Your task to perform on an android device: turn on location history Image 0: 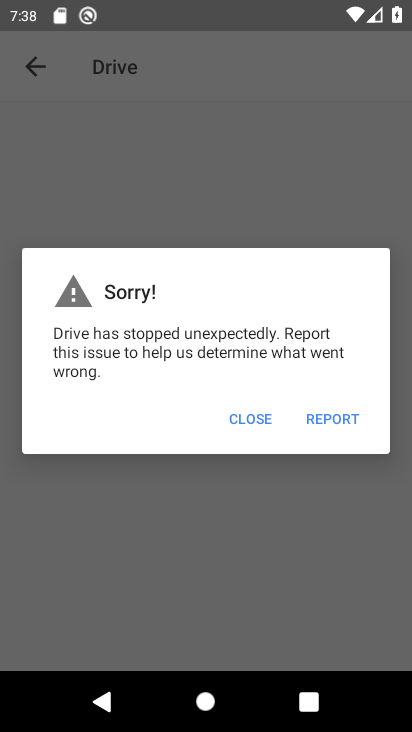
Step 0: press home button
Your task to perform on an android device: turn on location history Image 1: 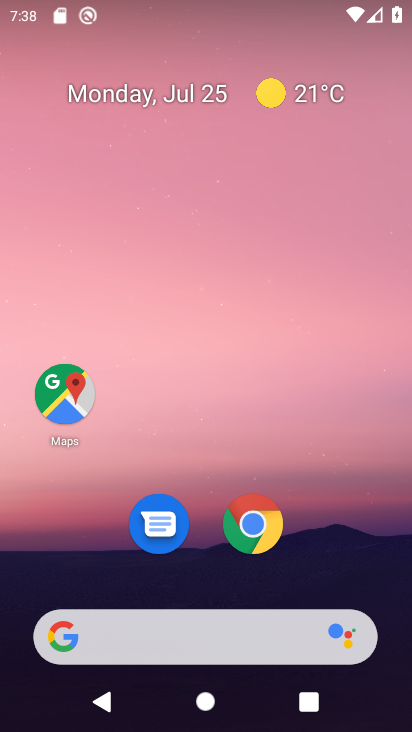
Step 1: click (64, 397)
Your task to perform on an android device: turn on location history Image 2: 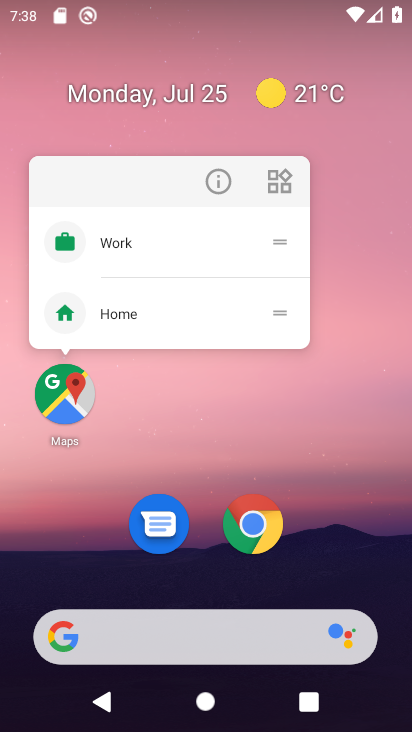
Step 2: click (71, 388)
Your task to perform on an android device: turn on location history Image 3: 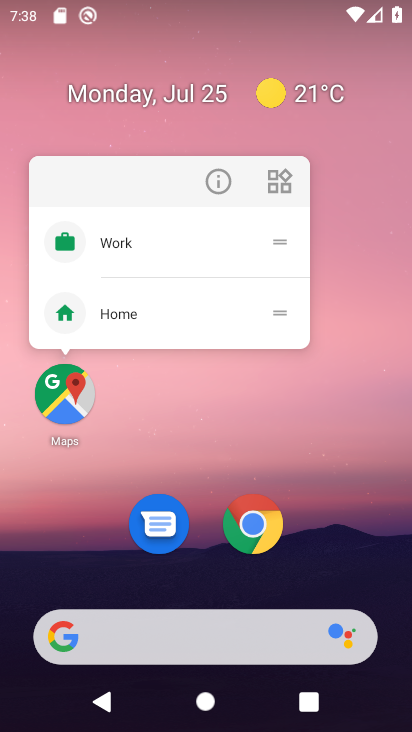
Step 3: click (67, 400)
Your task to perform on an android device: turn on location history Image 4: 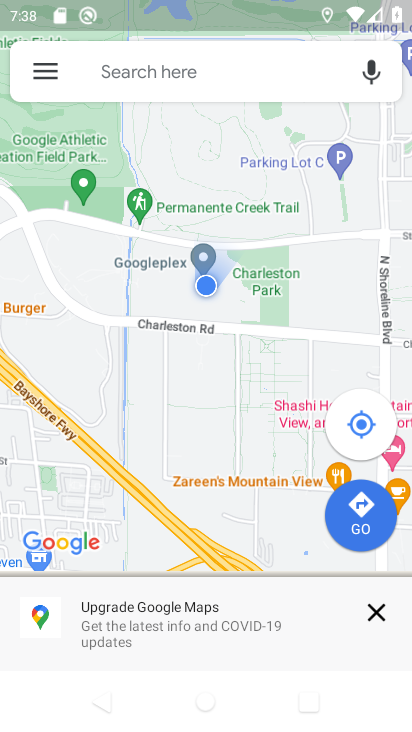
Step 4: click (48, 63)
Your task to perform on an android device: turn on location history Image 5: 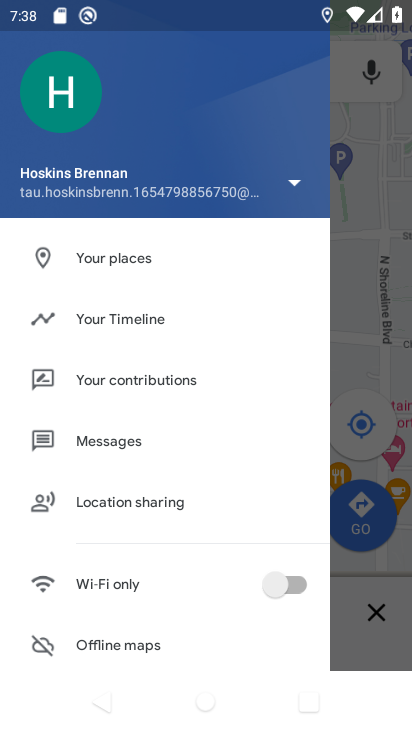
Step 5: click (137, 314)
Your task to perform on an android device: turn on location history Image 6: 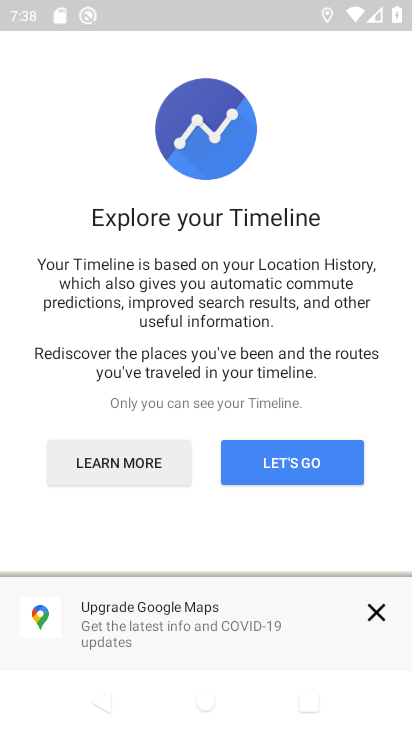
Step 6: click (285, 464)
Your task to perform on an android device: turn on location history Image 7: 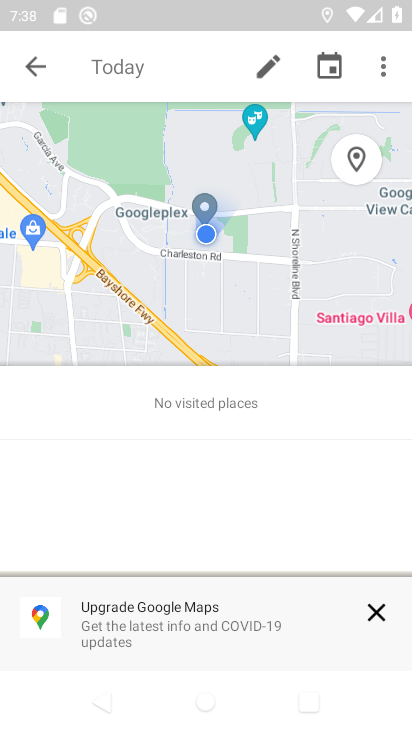
Step 7: click (379, 64)
Your task to perform on an android device: turn on location history Image 8: 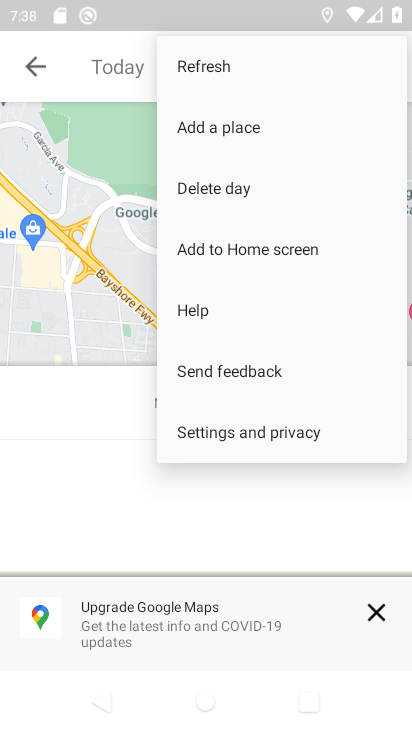
Step 8: click (255, 434)
Your task to perform on an android device: turn on location history Image 9: 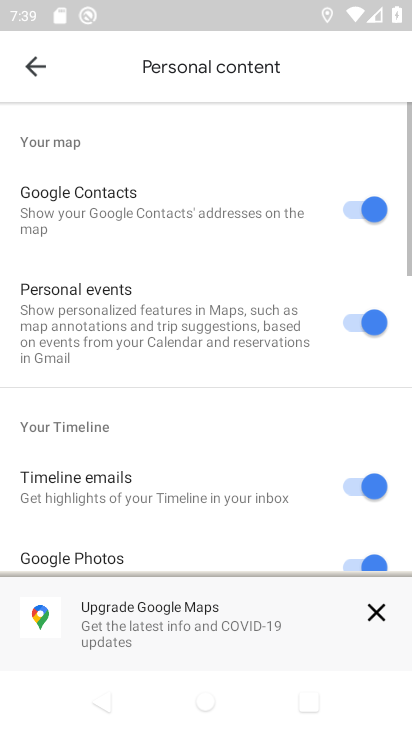
Step 9: drag from (249, 538) to (310, 223)
Your task to perform on an android device: turn on location history Image 10: 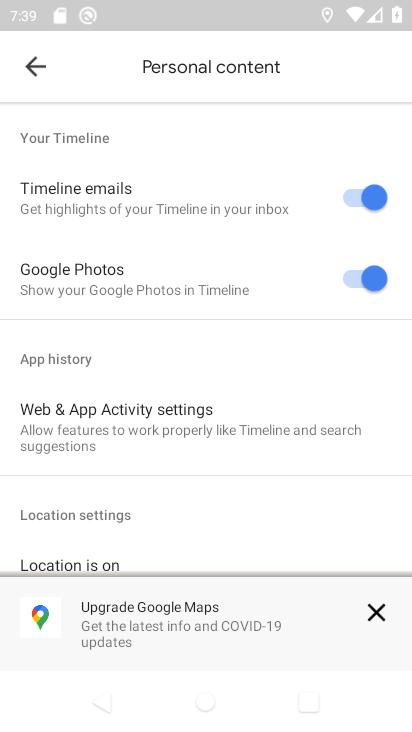
Step 10: drag from (202, 480) to (298, 170)
Your task to perform on an android device: turn on location history Image 11: 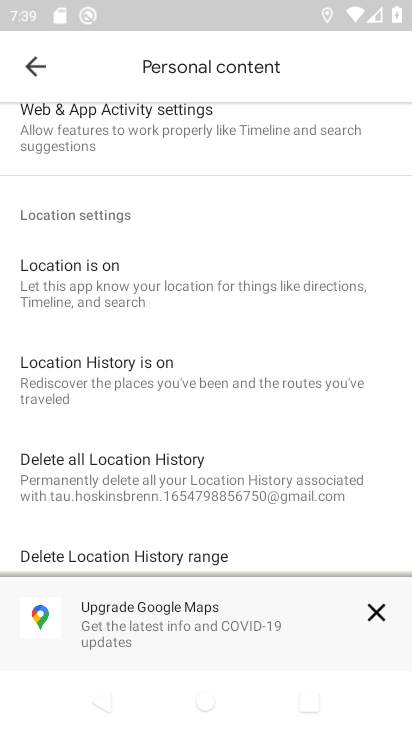
Step 11: click (115, 363)
Your task to perform on an android device: turn on location history Image 12: 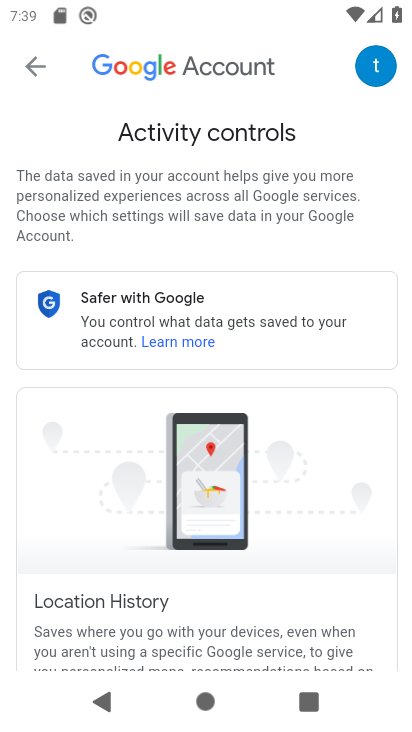
Step 12: task complete